Your task to perform on an android device: change alarm snooze length Image 0: 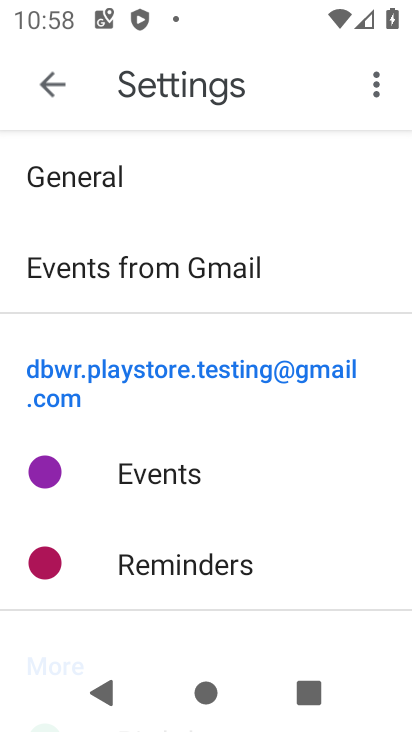
Step 0: press home button
Your task to perform on an android device: change alarm snooze length Image 1: 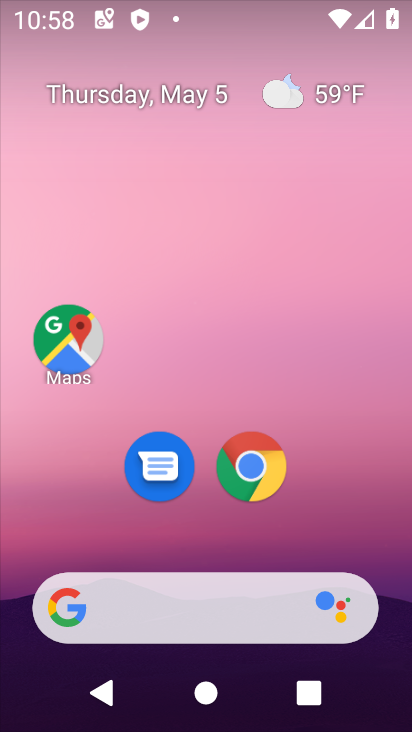
Step 1: drag from (368, 510) to (373, 231)
Your task to perform on an android device: change alarm snooze length Image 2: 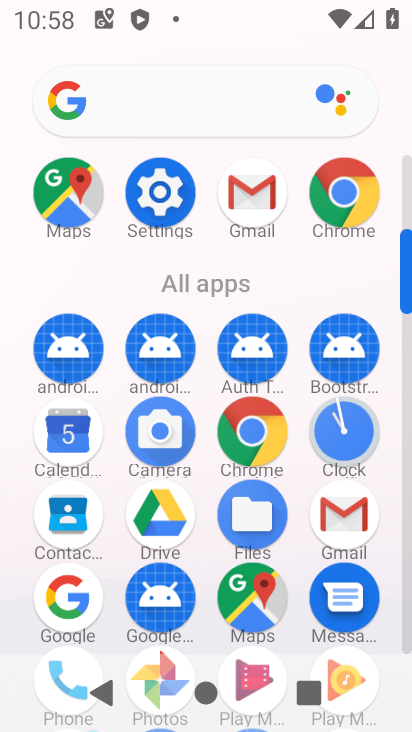
Step 2: click (326, 433)
Your task to perform on an android device: change alarm snooze length Image 3: 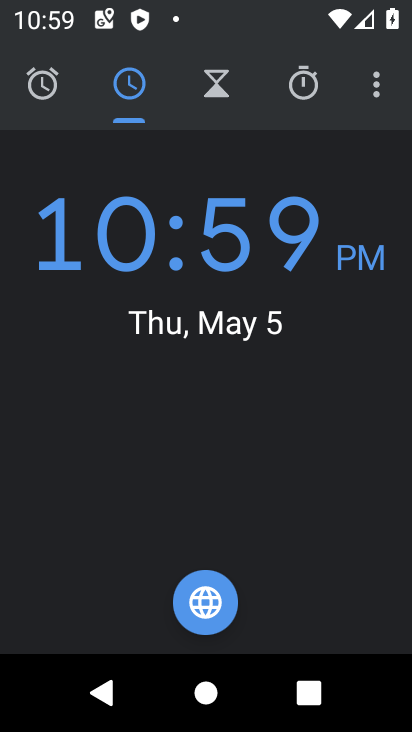
Step 3: click (376, 98)
Your task to perform on an android device: change alarm snooze length Image 4: 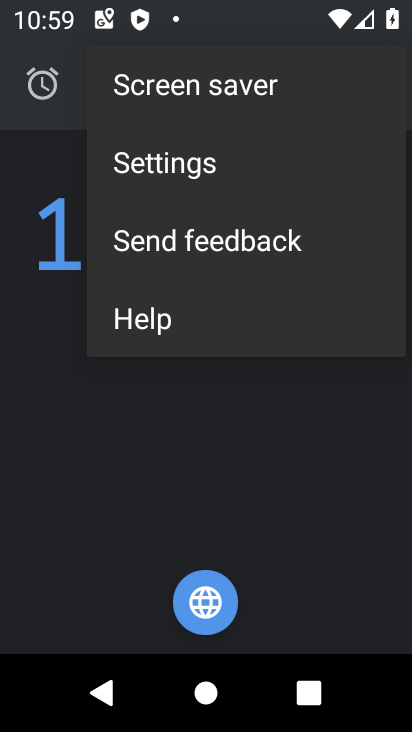
Step 4: click (257, 160)
Your task to perform on an android device: change alarm snooze length Image 5: 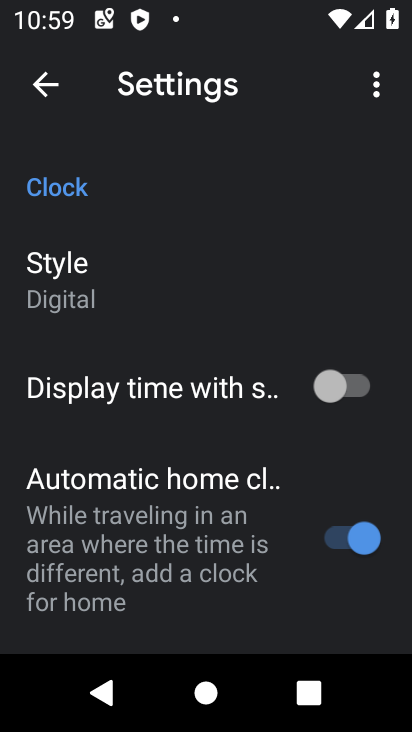
Step 5: drag from (274, 519) to (249, 227)
Your task to perform on an android device: change alarm snooze length Image 6: 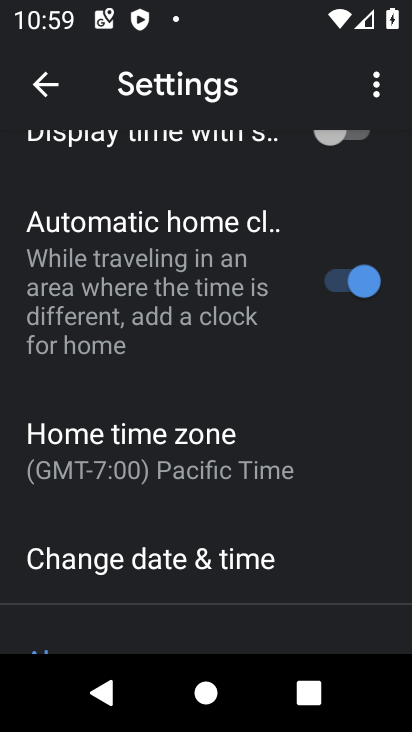
Step 6: drag from (256, 579) to (210, 203)
Your task to perform on an android device: change alarm snooze length Image 7: 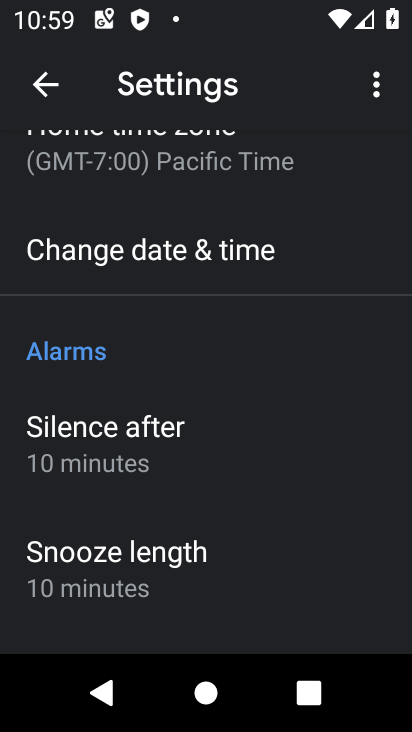
Step 7: click (190, 589)
Your task to perform on an android device: change alarm snooze length Image 8: 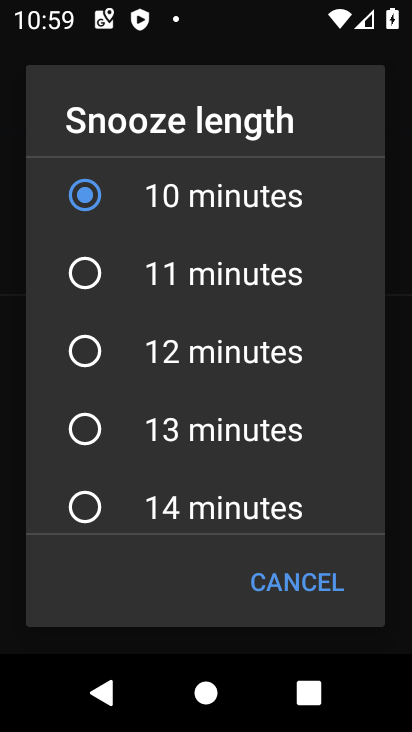
Step 8: click (227, 283)
Your task to perform on an android device: change alarm snooze length Image 9: 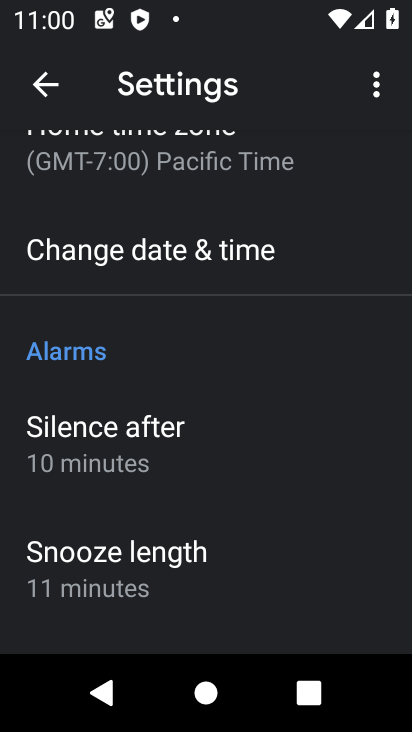
Step 9: task complete